Your task to perform on an android device: Play the last video I watched on Youtube Image 0: 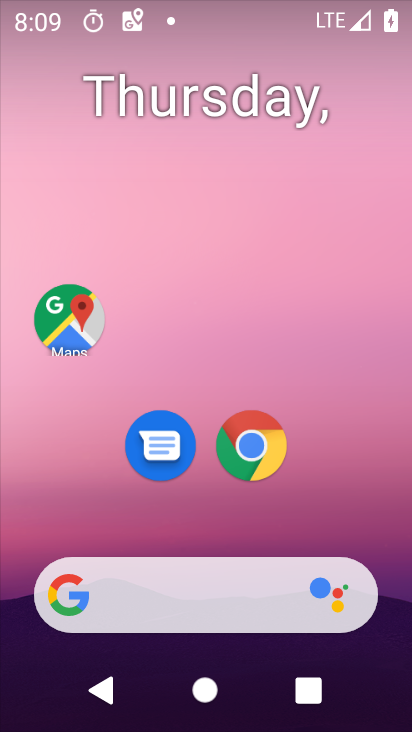
Step 0: drag from (194, 514) to (213, 385)
Your task to perform on an android device: Play the last video I watched on Youtube Image 1: 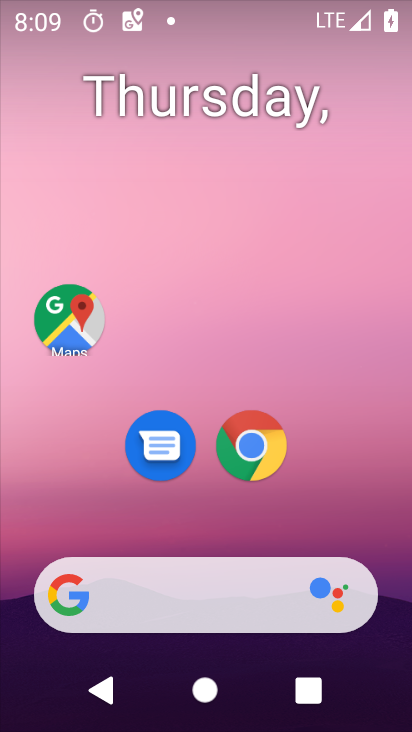
Step 1: drag from (195, 533) to (286, 84)
Your task to perform on an android device: Play the last video I watched on Youtube Image 2: 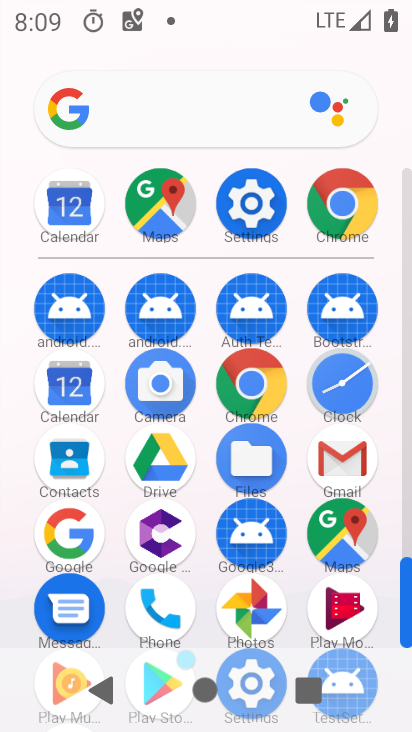
Step 2: drag from (211, 631) to (217, 275)
Your task to perform on an android device: Play the last video I watched on Youtube Image 3: 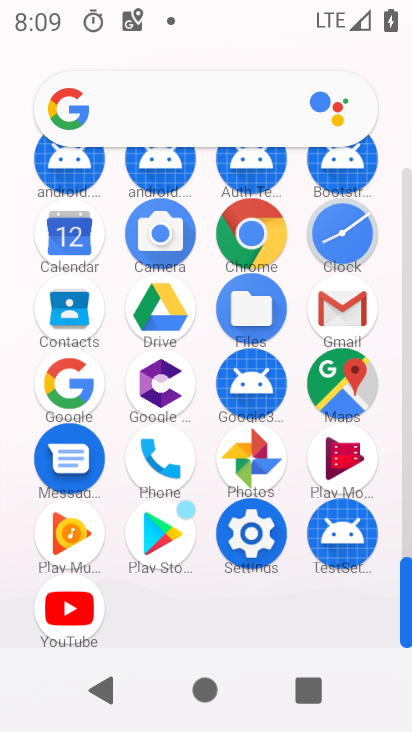
Step 3: click (64, 593)
Your task to perform on an android device: Play the last video I watched on Youtube Image 4: 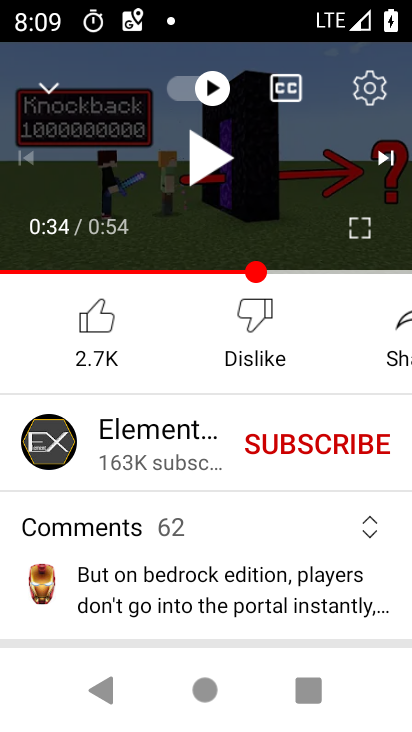
Step 4: drag from (199, 594) to (236, 348)
Your task to perform on an android device: Play the last video I watched on Youtube Image 5: 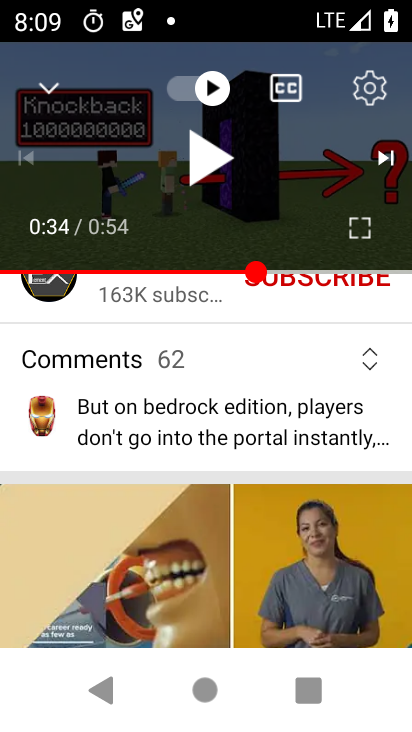
Step 5: drag from (299, 205) to (364, 649)
Your task to perform on an android device: Play the last video I watched on Youtube Image 6: 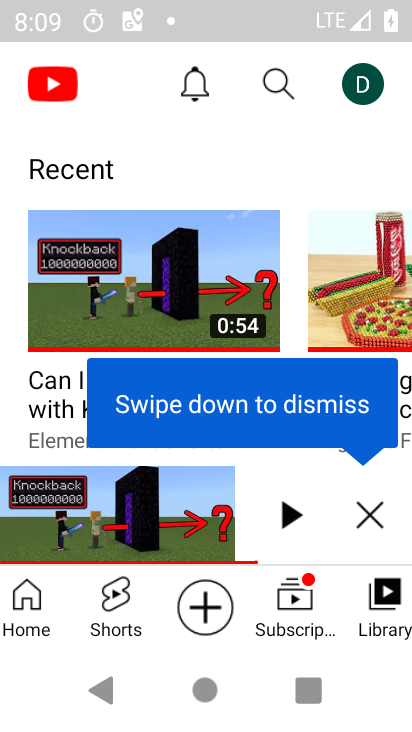
Step 6: click (370, 594)
Your task to perform on an android device: Play the last video I watched on Youtube Image 7: 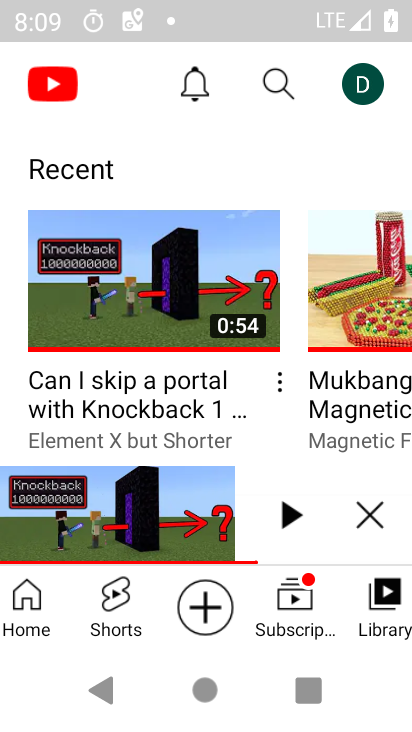
Step 7: click (368, 524)
Your task to perform on an android device: Play the last video I watched on Youtube Image 8: 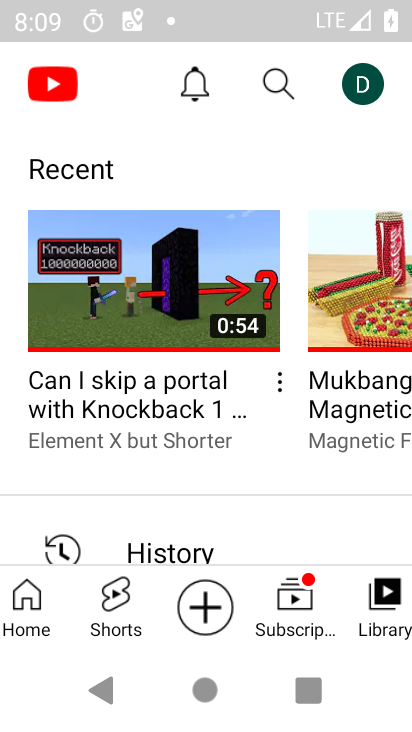
Step 8: click (377, 607)
Your task to perform on an android device: Play the last video I watched on Youtube Image 9: 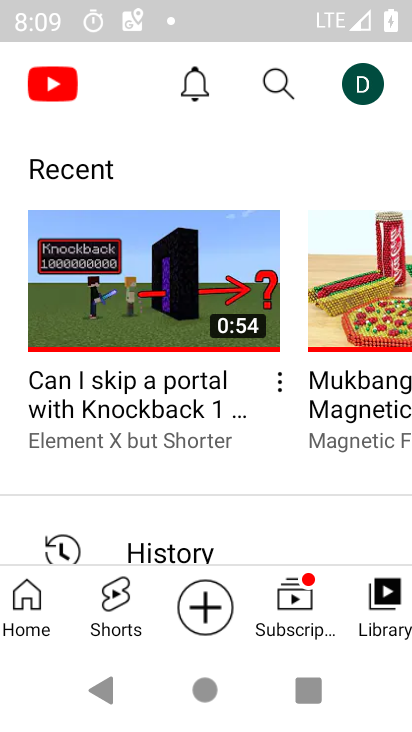
Step 9: click (167, 327)
Your task to perform on an android device: Play the last video I watched on Youtube Image 10: 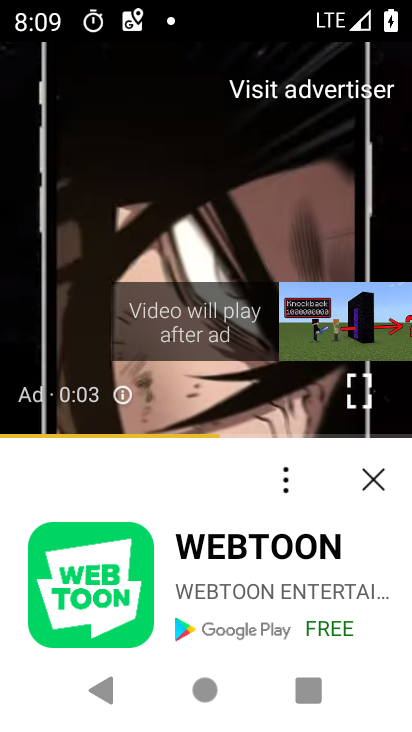
Step 10: task complete